Your task to perform on an android device: What's the weather today? Image 0: 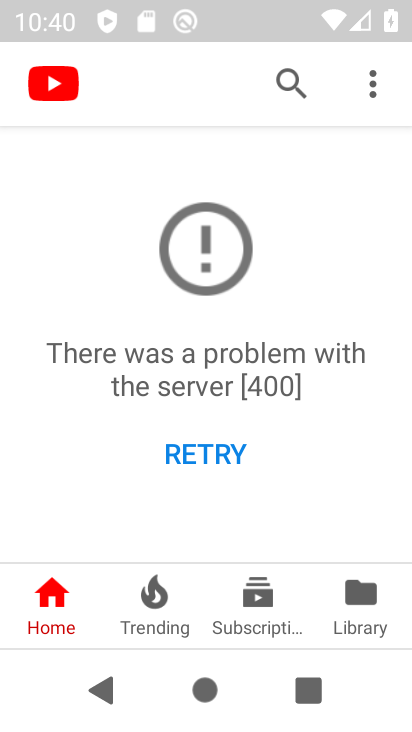
Step 0: drag from (173, 544) to (176, 144)
Your task to perform on an android device: What's the weather today? Image 1: 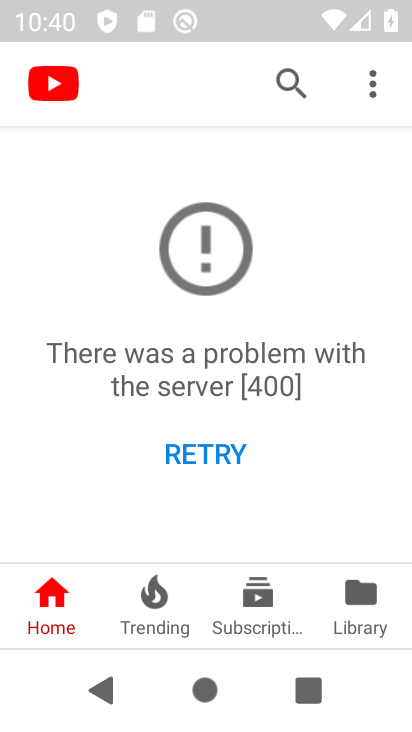
Step 1: press home button
Your task to perform on an android device: What's the weather today? Image 2: 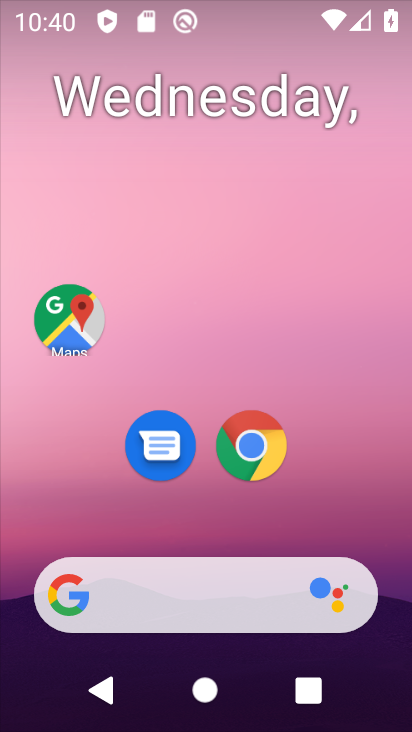
Step 2: drag from (183, 405) to (268, 29)
Your task to perform on an android device: What's the weather today? Image 3: 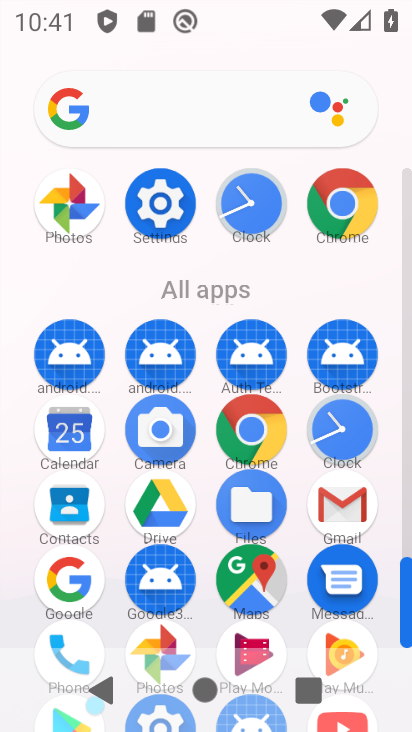
Step 3: click (136, 121)
Your task to perform on an android device: What's the weather today? Image 4: 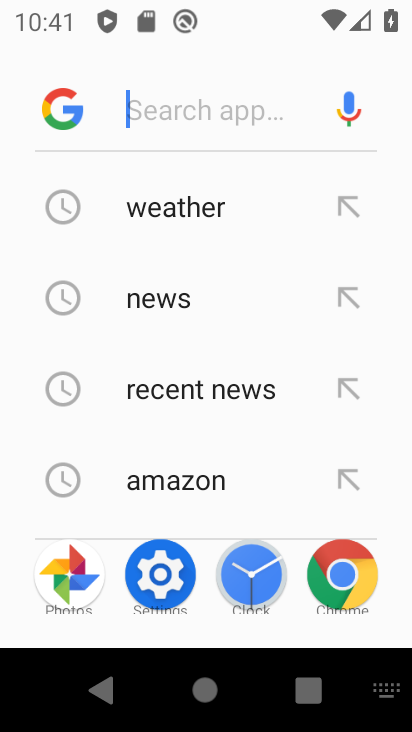
Step 4: click (190, 217)
Your task to perform on an android device: What's the weather today? Image 5: 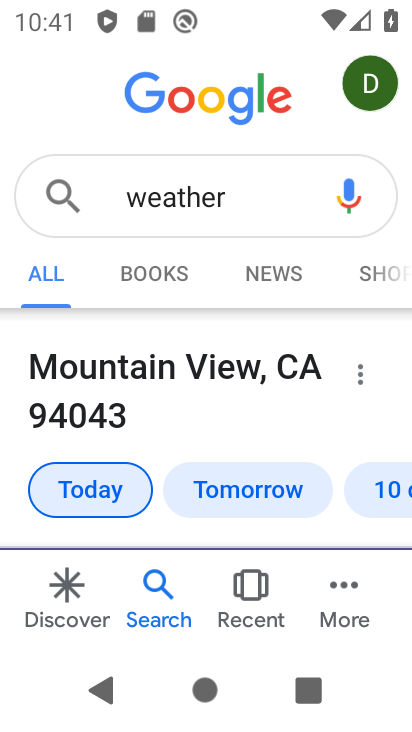
Step 5: task complete